Your task to perform on an android device: delete browsing data in the chrome app Image 0: 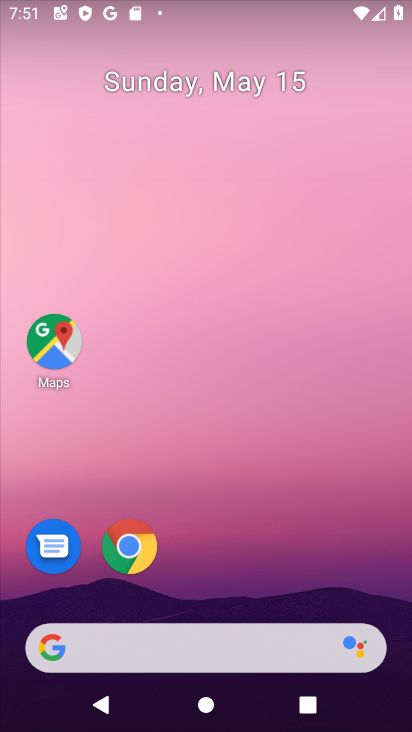
Step 0: click (138, 541)
Your task to perform on an android device: delete browsing data in the chrome app Image 1: 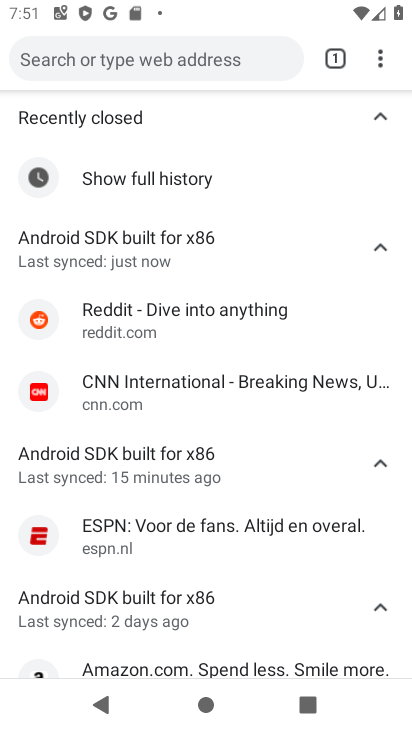
Step 1: click (378, 53)
Your task to perform on an android device: delete browsing data in the chrome app Image 2: 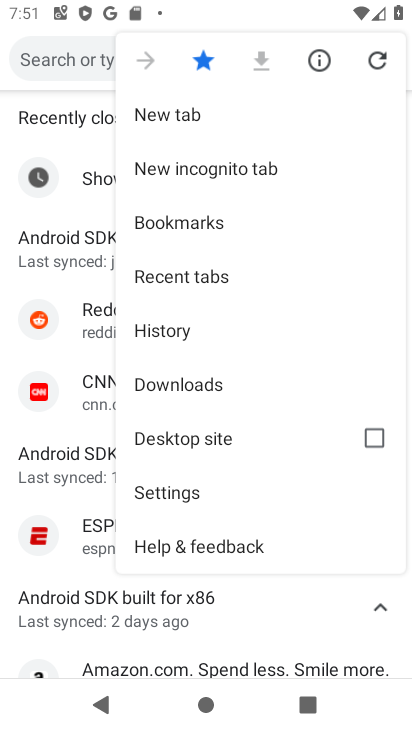
Step 2: click (177, 331)
Your task to perform on an android device: delete browsing data in the chrome app Image 3: 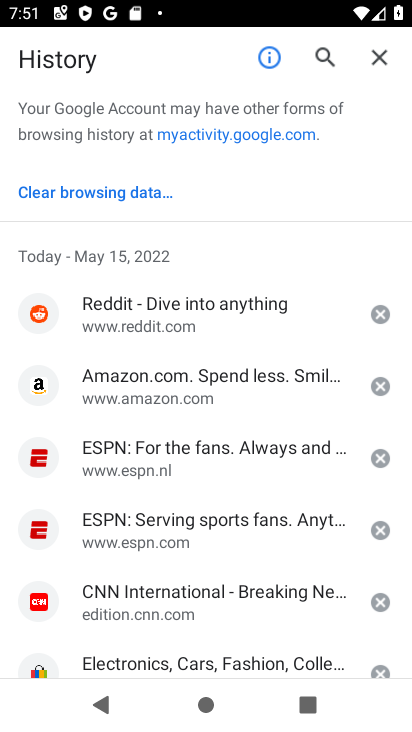
Step 3: click (136, 187)
Your task to perform on an android device: delete browsing data in the chrome app Image 4: 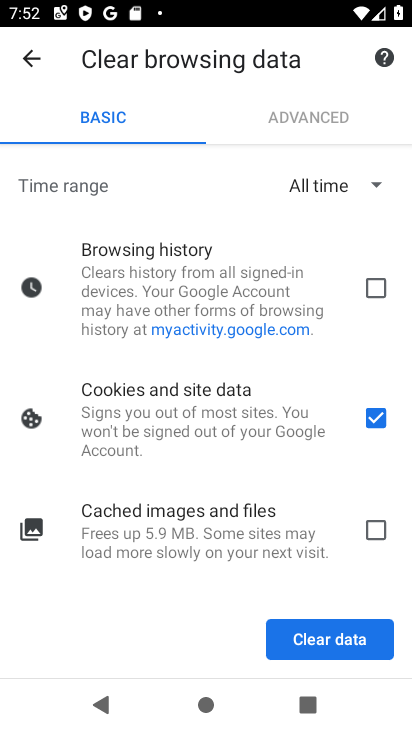
Step 4: click (374, 285)
Your task to perform on an android device: delete browsing data in the chrome app Image 5: 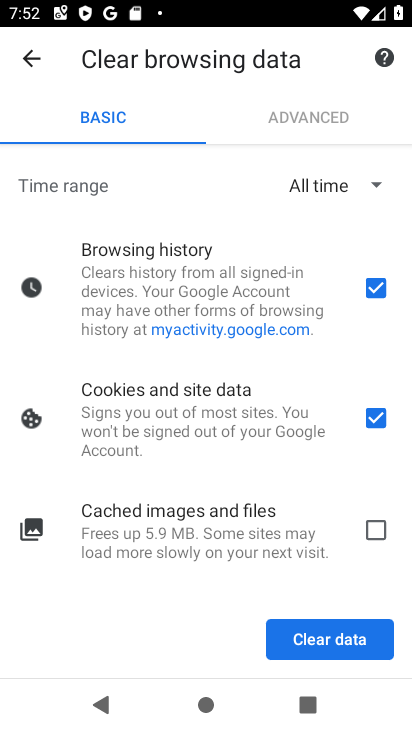
Step 5: click (374, 521)
Your task to perform on an android device: delete browsing data in the chrome app Image 6: 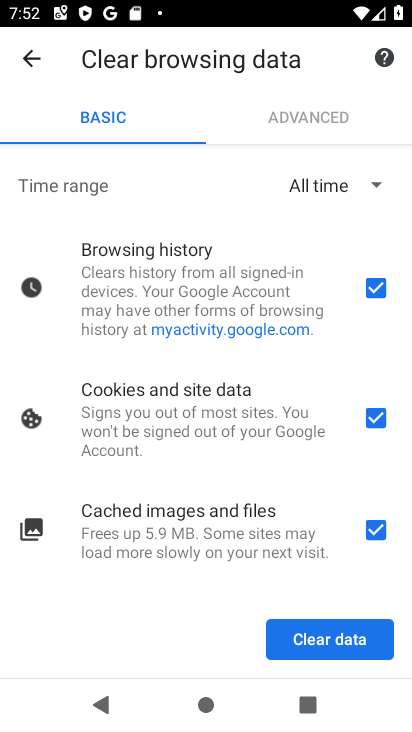
Step 6: click (366, 634)
Your task to perform on an android device: delete browsing data in the chrome app Image 7: 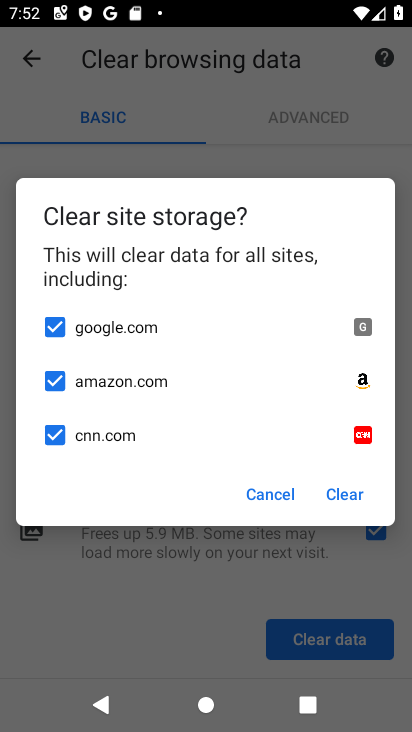
Step 7: click (351, 489)
Your task to perform on an android device: delete browsing data in the chrome app Image 8: 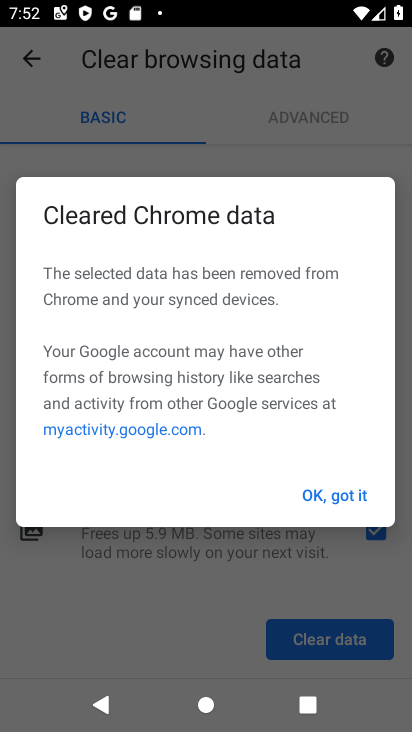
Step 8: click (351, 491)
Your task to perform on an android device: delete browsing data in the chrome app Image 9: 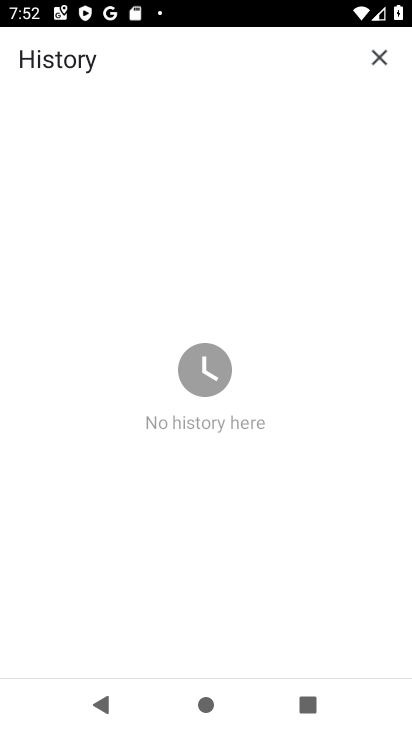
Step 9: task complete